Your task to perform on an android device: Go to network settings Image 0: 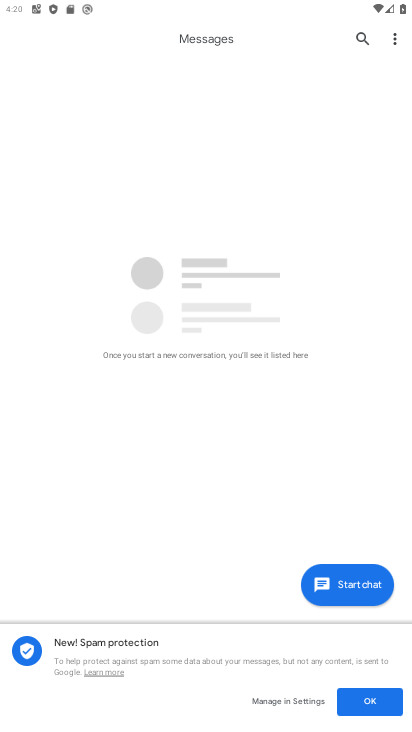
Step 0: press home button
Your task to perform on an android device: Go to network settings Image 1: 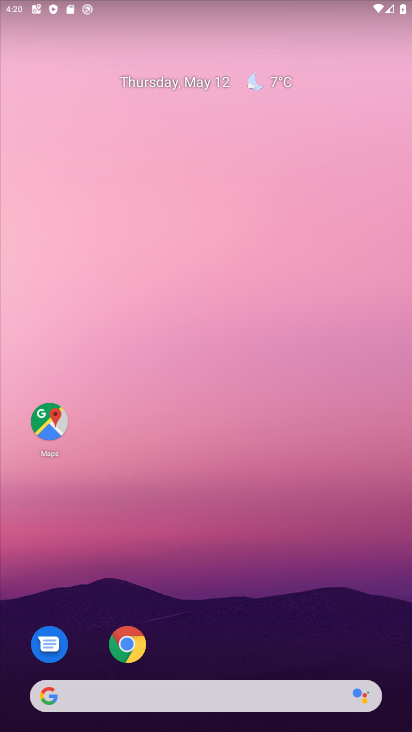
Step 1: drag from (213, 629) to (258, 89)
Your task to perform on an android device: Go to network settings Image 2: 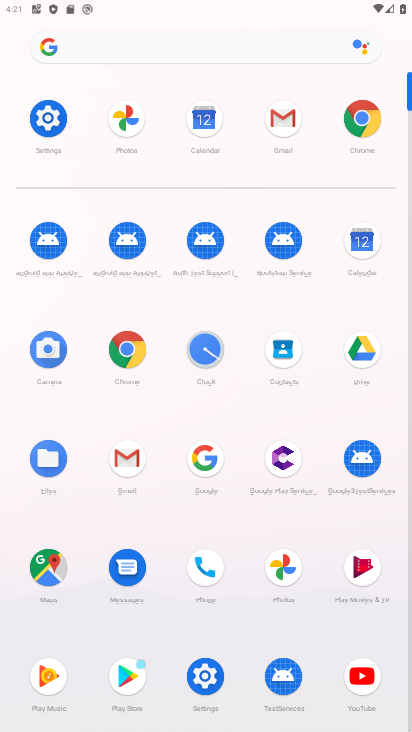
Step 2: click (48, 114)
Your task to perform on an android device: Go to network settings Image 3: 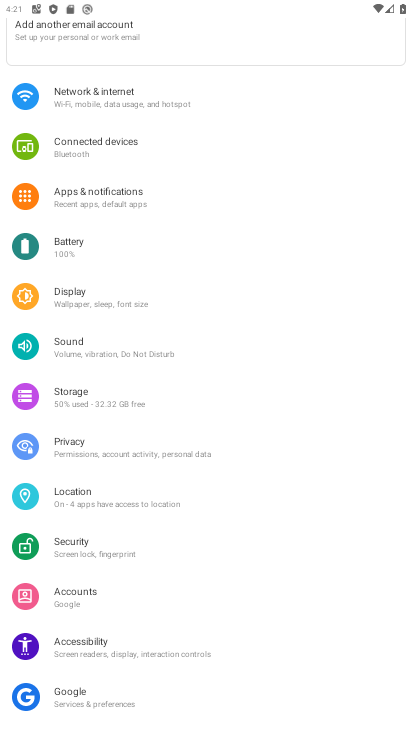
Step 3: click (133, 90)
Your task to perform on an android device: Go to network settings Image 4: 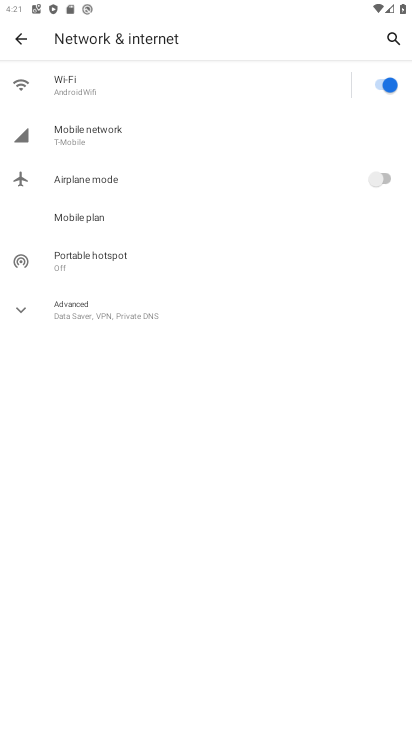
Step 4: click (50, 301)
Your task to perform on an android device: Go to network settings Image 5: 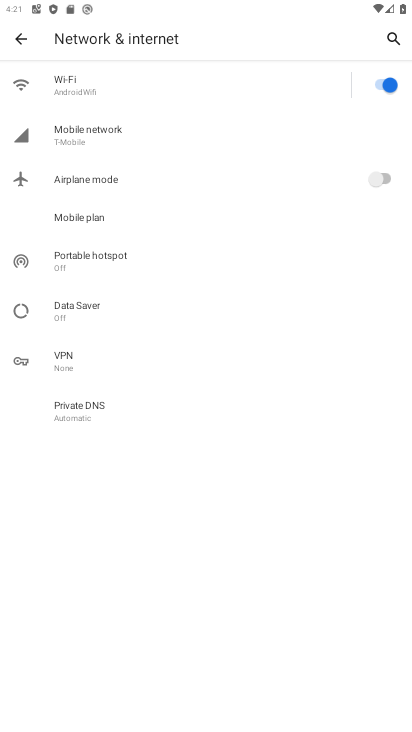
Step 5: task complete